Your task to perform on an android device: toggle pop-ups in chrome Image 0: 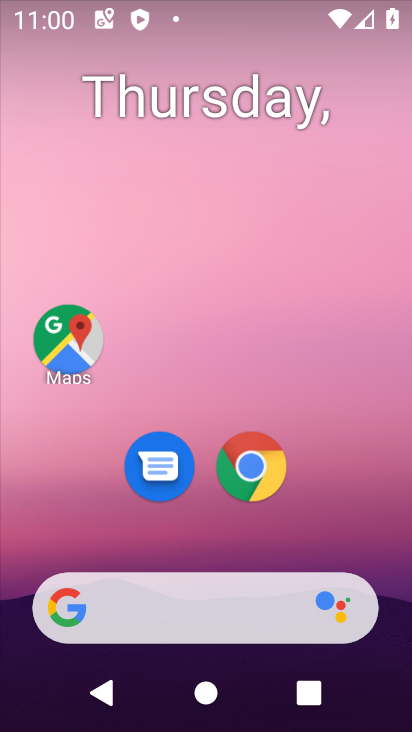
Step 0: drag from (172, 552) to (225, 0)
Your task to perform on an android device: toggle pop-ups in chrome Image 1: 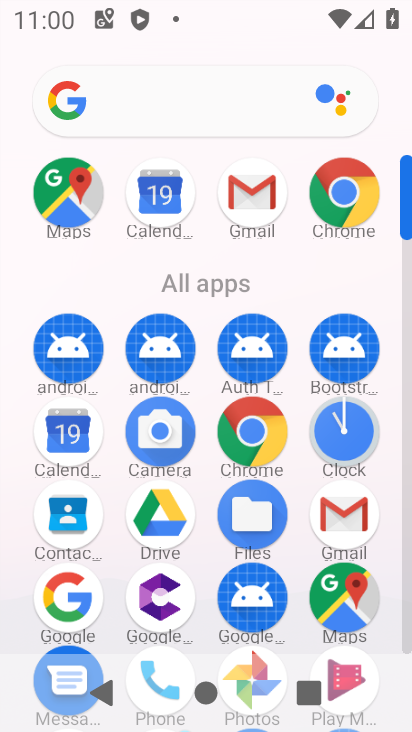
Step 1: click (241, 436)
Your task to perform on an android device: toggle pop-ups in chrome Image 2: 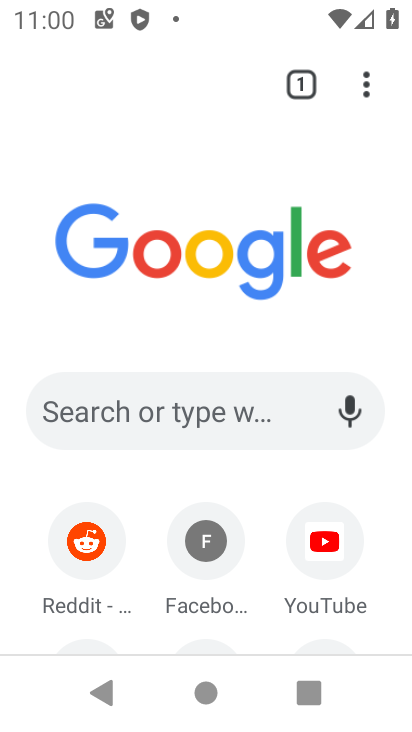
Step 2: click (371, 78)
Your task to perform on an android device: toggle pop-ups in chrome Image 3: 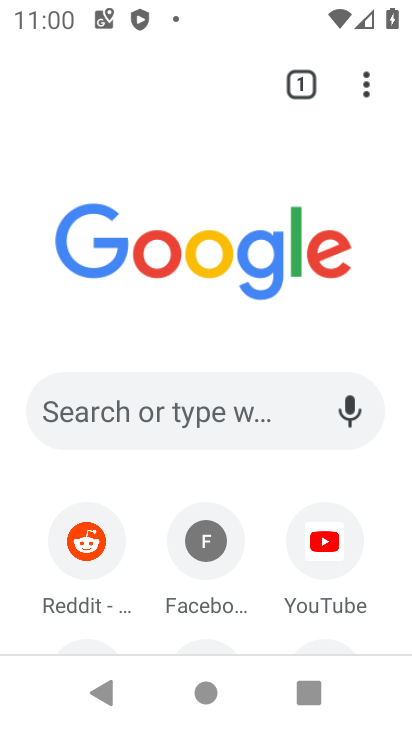
Step 3: drag from (369, 81) to (76, 532)
Your task to perform on an android device: toggle pop-ups in chrome Image 4: 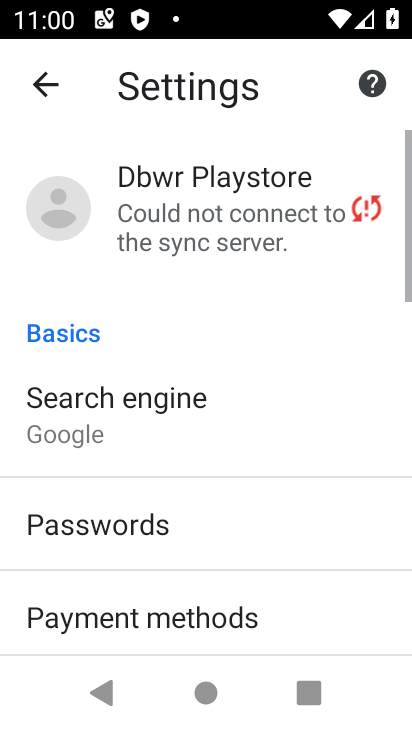
Step 4: drag from (101, 515) to (95, 91)
Your task to perform on an android device: toggle pop-ups in chrome Image 5: 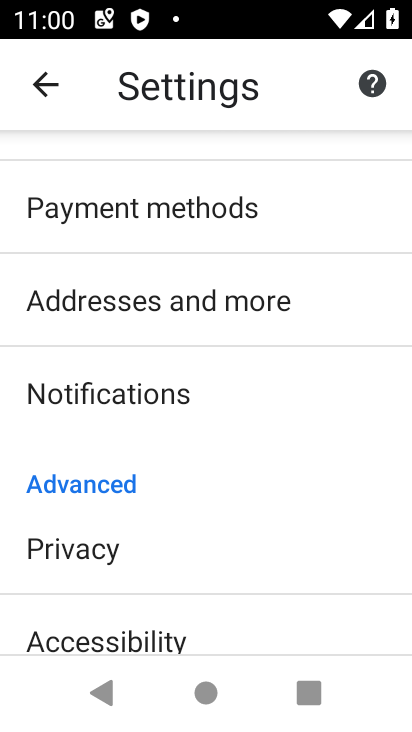
Step 5: drag from (132, 596) to (95, 153)
Your task to perform on an android device: toggle pop-ups in chrome Image 6: 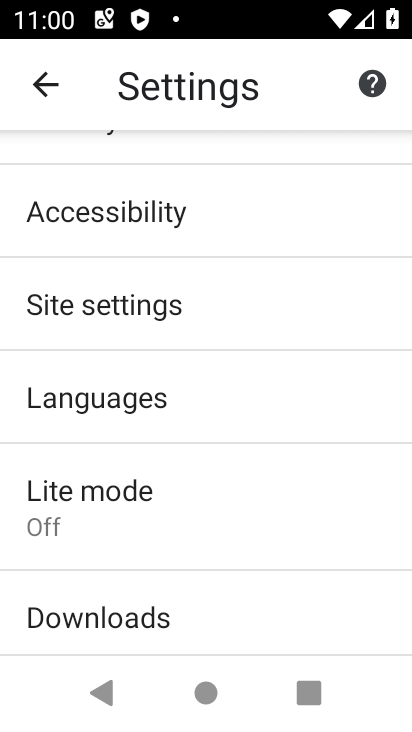
Step 6: click (122, 313)
Your task to perform on an android device: toggle pop-ups in chrome Image 7: 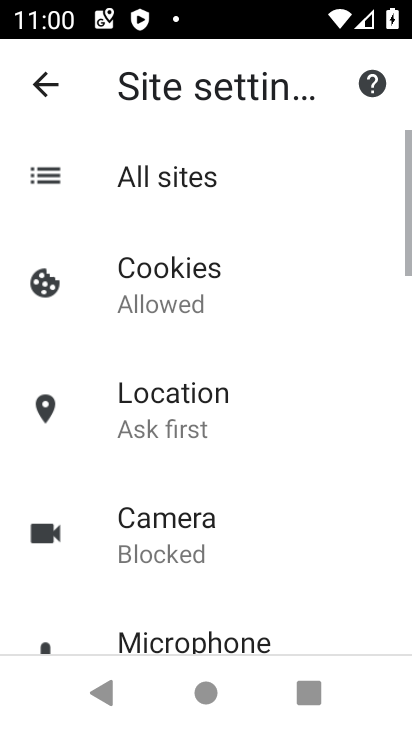
Step 7: drag from (179, 543) to (129, 118)
Your task to perform on an android device: toggle pop-ups in chrome Image 8: 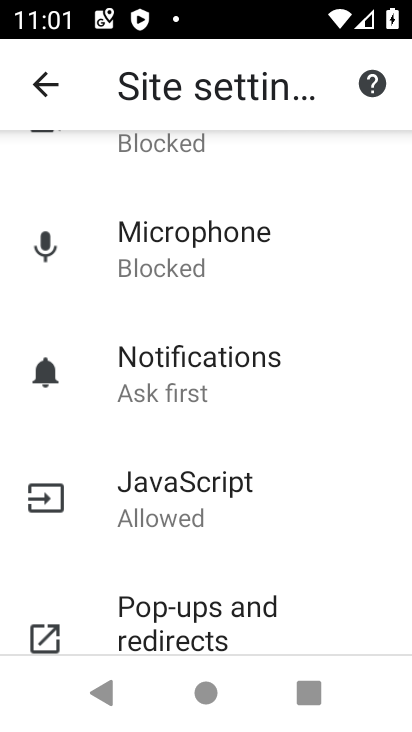
Step 8: click (176, 591)
Your task to perform on an android device: toggle pop-ups in chrome Image 9: 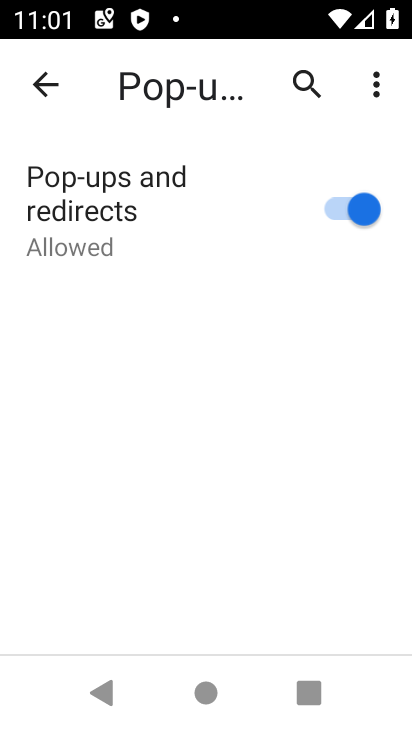
Step 9: click (335, 205)
Your task to perform on an android device: toggle pop-ups in chrome Image 10: 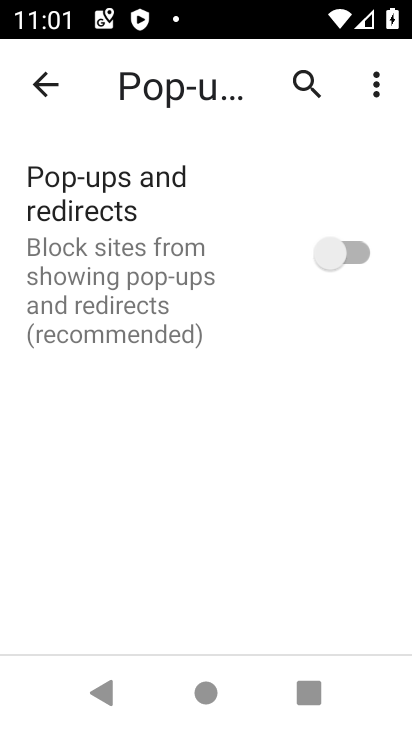
Step 10: task complete